Your task to perform on an android device: delete browsing data in the chrome app Image 0: 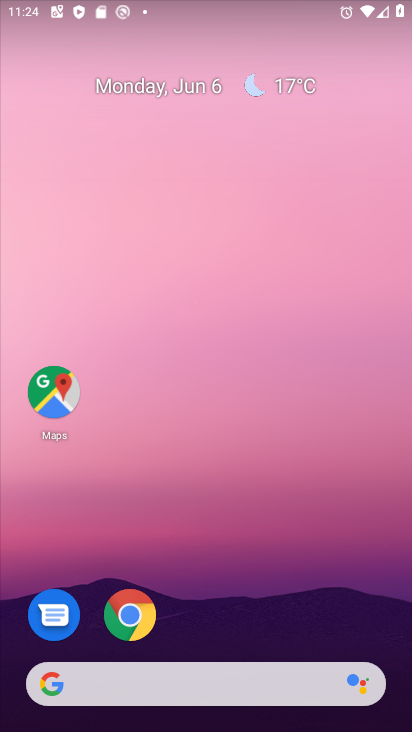
Step 0: press home button
Your task to perform on an android device: delete browsing data in the chrome app Image 1: 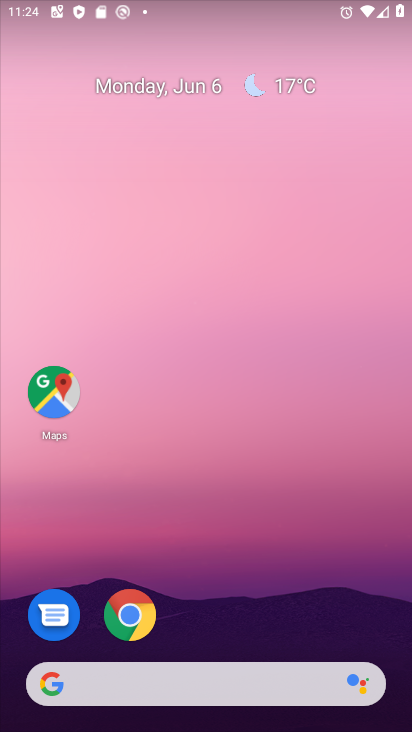
Step 1: click (135, 614)
Your task to perform on an android device: delete browsing data in the chrome app Image 2: 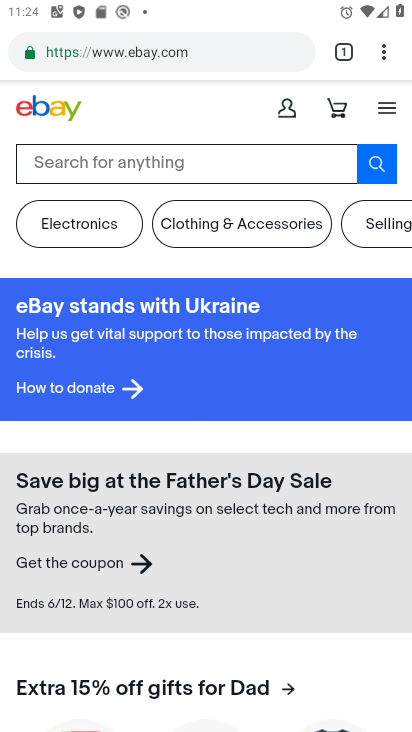
Step 2: click (385, 51)
Your task to perform on an android device: delete browsing data in the chrome app Image 3: 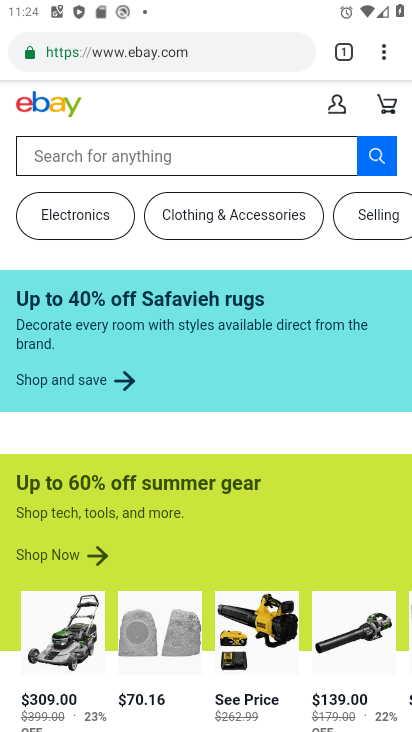
Step 3: click (385, 52)
Your task to perform on an android device: delete browsing data in the chrome app Image 4: 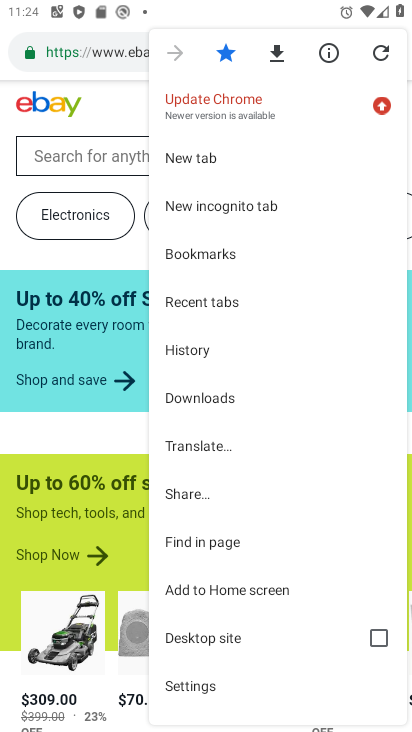
Step 4: click (221, 347)
Your task to perform on an android device: delete browsing data in the chrome app Image 5: 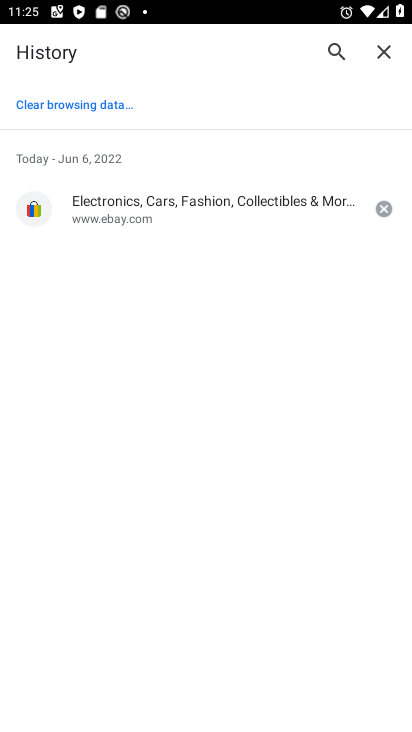
Step 5: click (85, 107)
Your task to perform on an android device: delete browsing data in the chrome app Image 6: 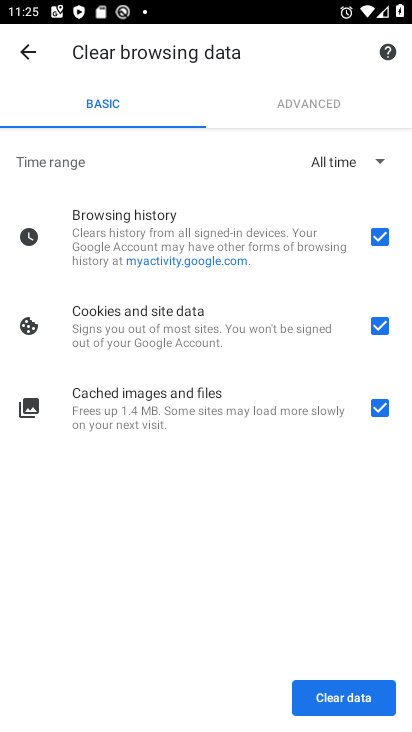
Step 6: click (349, 694)
Your task to perform on an android device: delete browsing data in the chrome app Image 7: 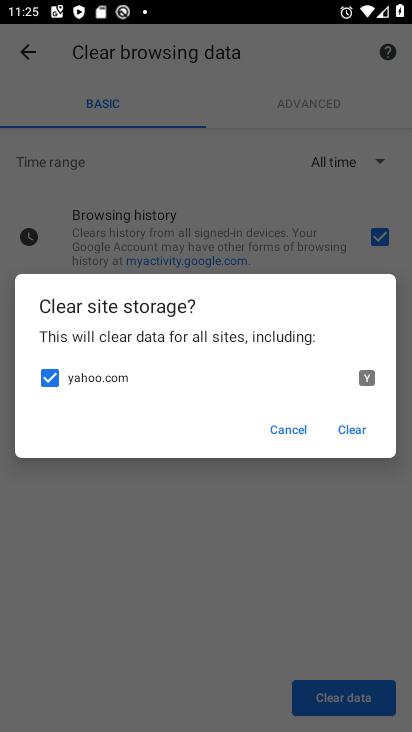
Step 7: click (327, 425)
Your task to perform on an android device: delete browsing data in the chrome app Image 8: 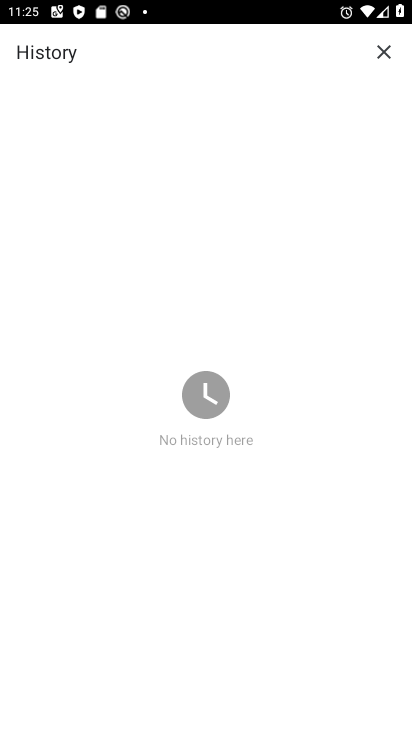
Step 8: task complete